Your task to perform on an android device: Search for seafood restaurants on Google Maps Image 0: 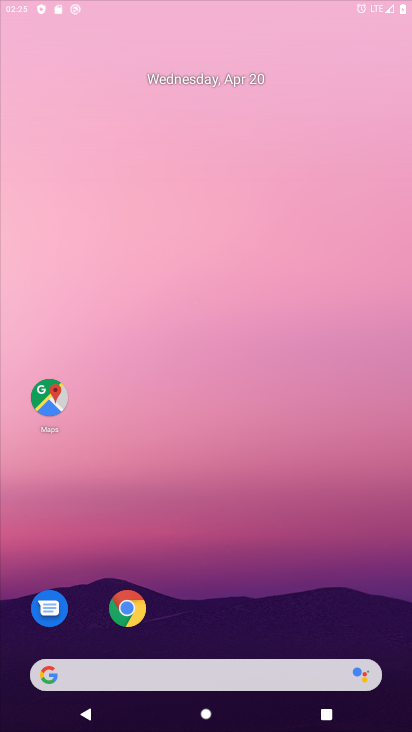
Step 0: drag from (327, 582) to (332, 230)
Your task to perform on an android device: Search for seafood restaurants on Google Maps Image 1: 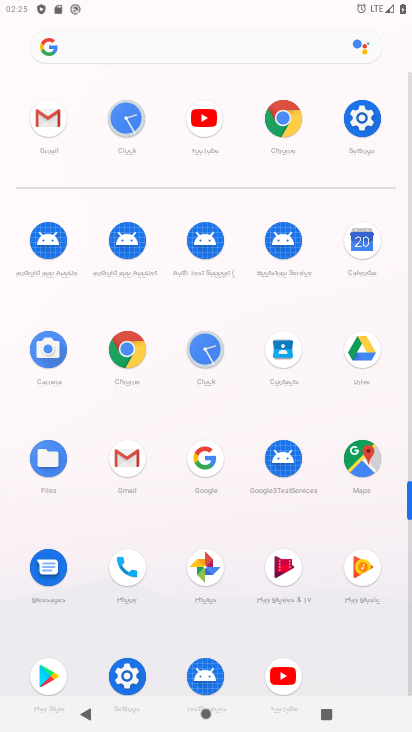
Step 1: click (363, 476)
Your task to perform on an android device: Search for seafood restaurants on Google Maps Image 2: 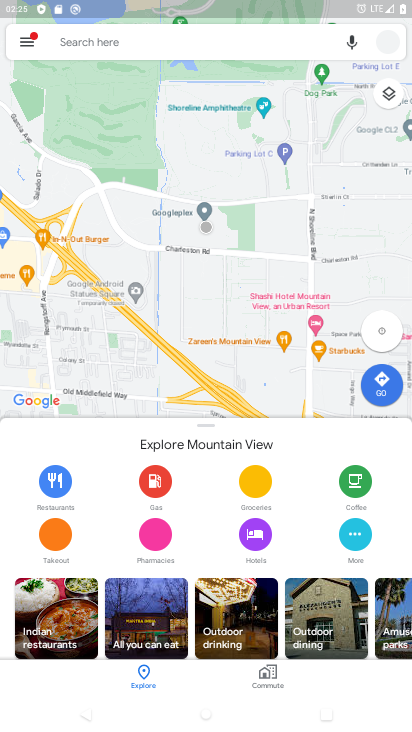
Step 2: click (194, 32)
Your task to perform on an android device: Search for seafood restaurants on Google Maps Image 3: 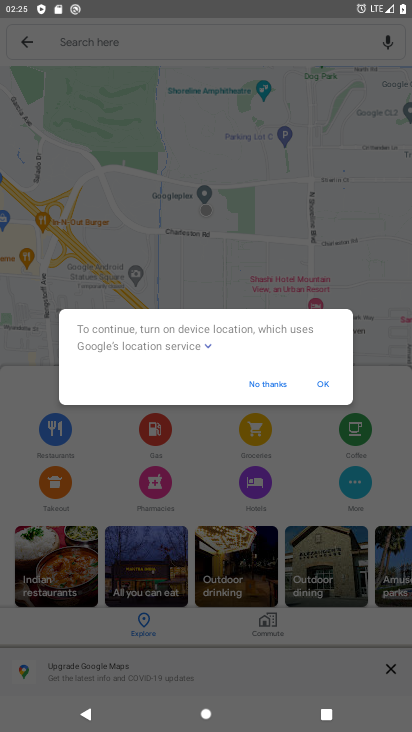
Step 3: click (318, 385)
Your task to perform on an android device: Search for seafood restaurants on Google Maps Image 4: 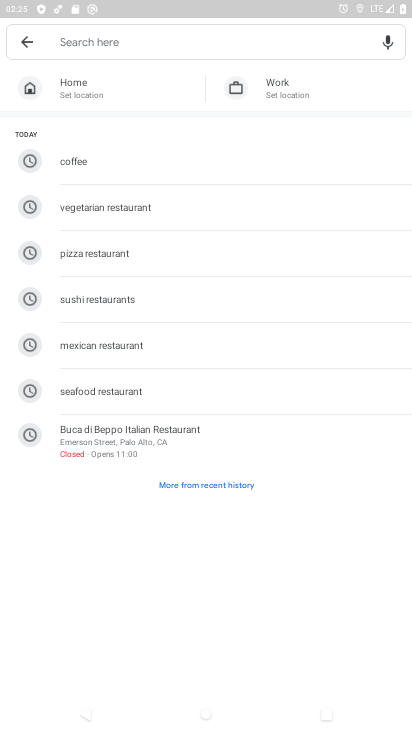
Step 4: click (151, 395)
Your task to perform on an android device: Search for seafood restaurants on Google Maps Image 5: 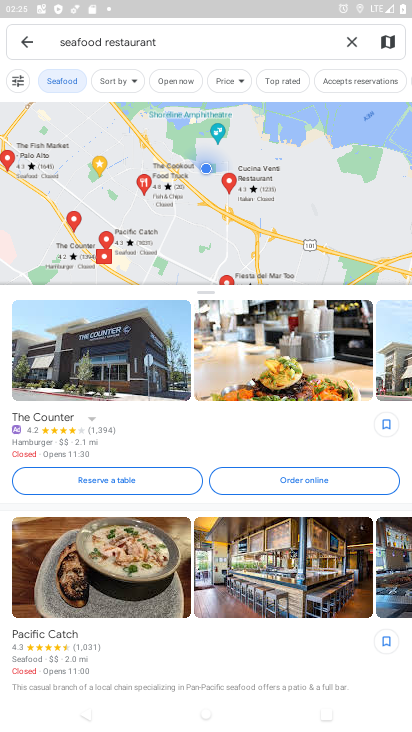
Step 5: task complete